Your task to perform on an android device: change keyboard looks Image 0: 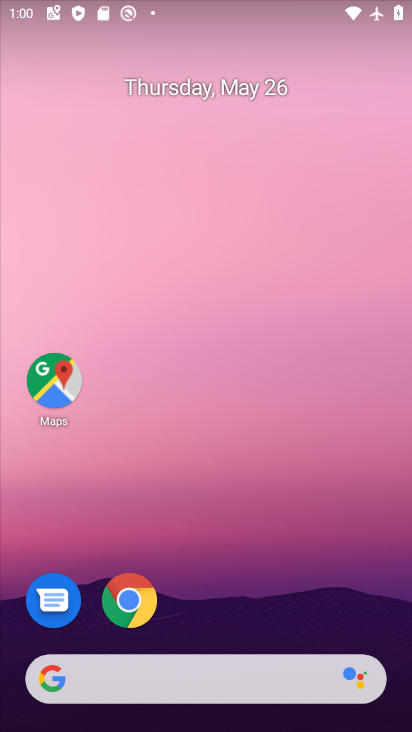
Step 0: drag from (303, 522) to (323, 131)
Your task to perform on an android device: change keyboard looks Image 1: 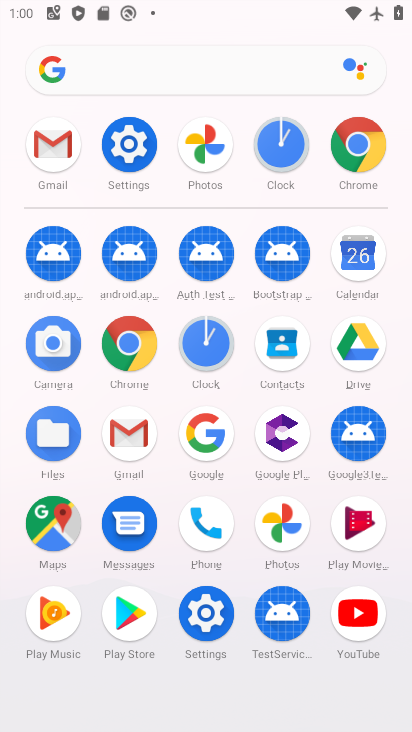
Step 1: click (149, 158)
Your task to perform on an android device: change keyboard looks Image 2: 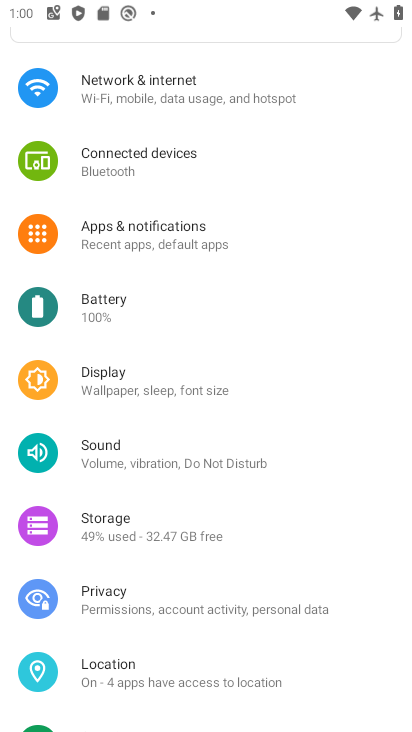
Step 2: drag from (264, 549) to (286, 140)
Your task to perform on an android device: change keyboard looks Image 3: 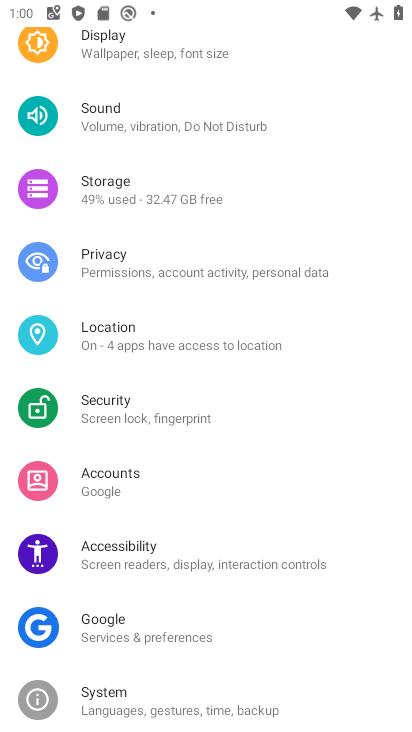
Step 3: drag from (238, 533) to (275, 334)
Your task to perform on an android device: change keyboard looks Image 4: 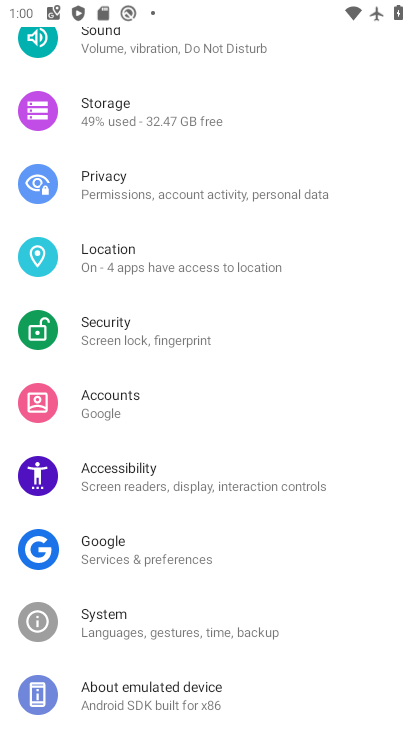
Step 4: click (150, 625)
Your task to perform on an android device: change keyboard looks Image 5: 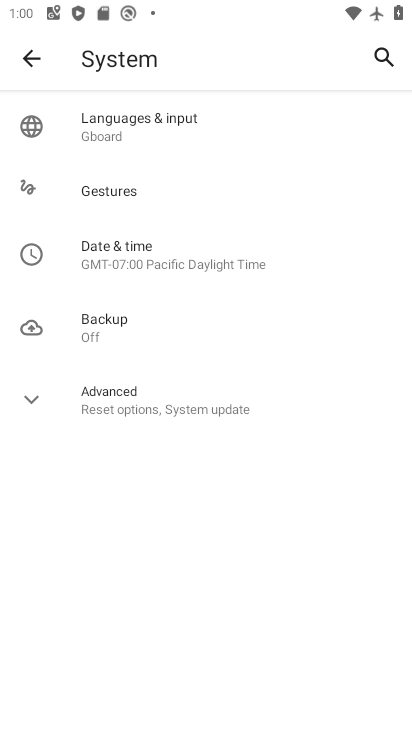
Step 5: click (154, 137)
Your task to perform on an android device: change keyboard looks Image 6: 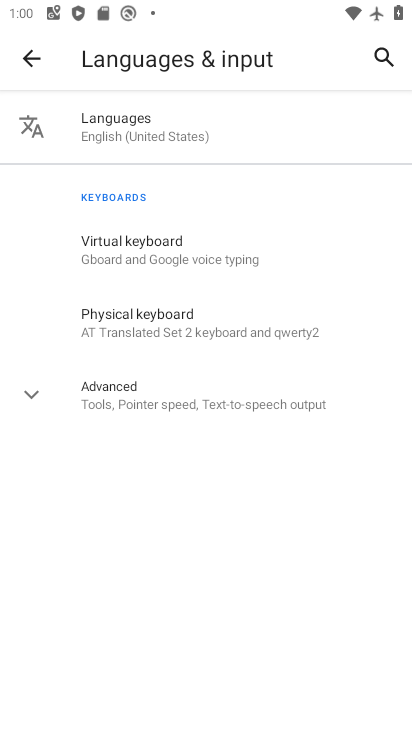
Step 6: click (162, 242)
Your task to perform on an android device: change keyboard looks Image 7: 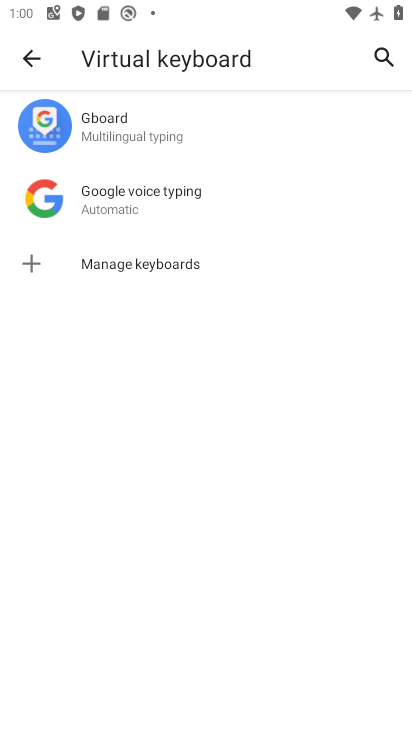
Step 7: click (141, 136)
Your task to perform on an android device: change keyboard looks Image 8: 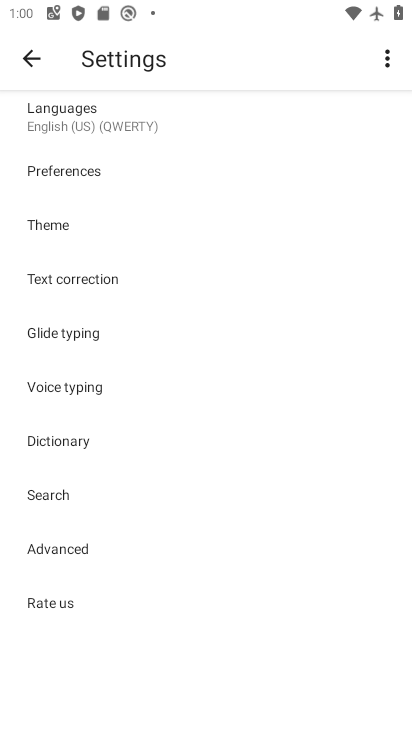
Step 8: click (61, 211)
Your task to perform on an android device: change keyboard looks Image 9: 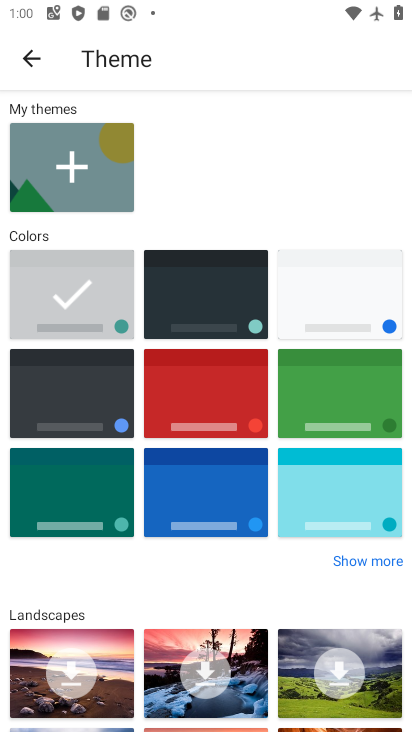
Step 9: click (339, 297)
Your task to perform on an android device: change keyboard looks Image 10: 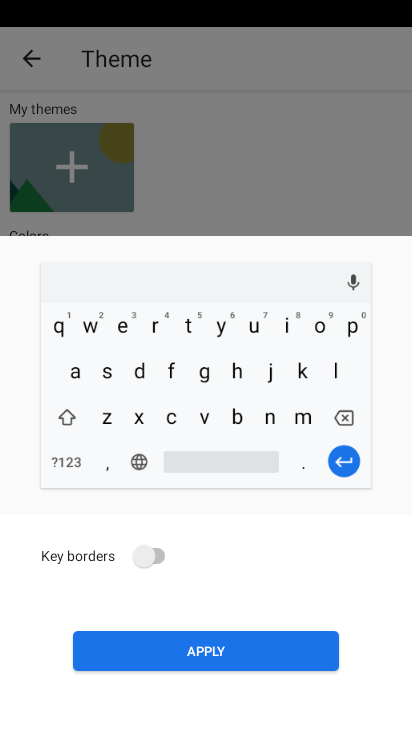
Step 10: click (271, 658)
Your task to perform on an android device: change keyboard looks Image 11: 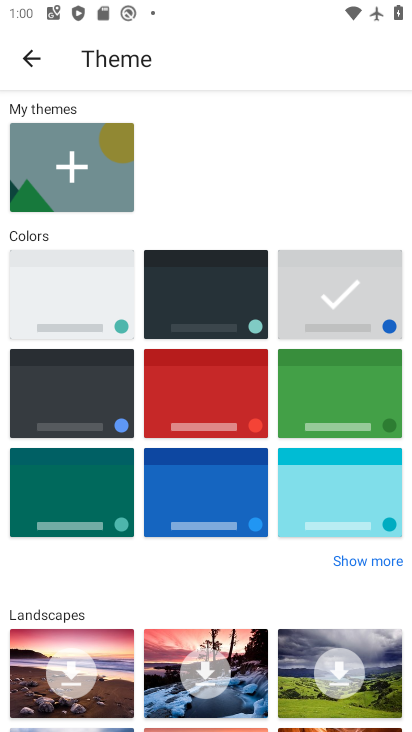
Step 11: task complete